Your task to perform on an android device: Show the shopping cart on newegg. Search for "razer thresher" on newegg, select the first entry, and add it to the cart. Image 0: 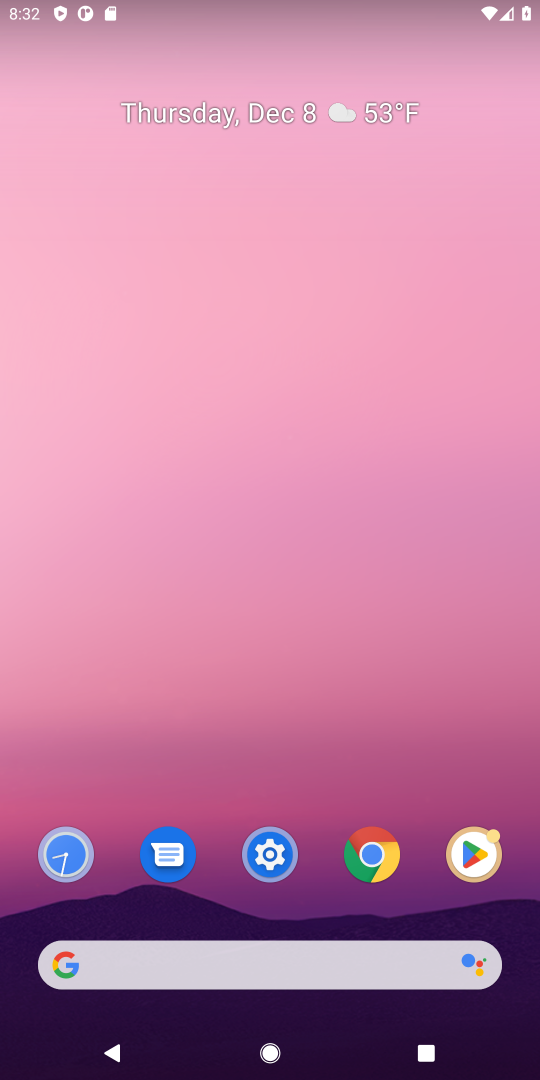
Step 0: press home button
Your task to perform on an android device: Show the shopping cart on newegg. Search for "razer thresher" on newegg, select the first entry, and add it to the cart. Image 1: 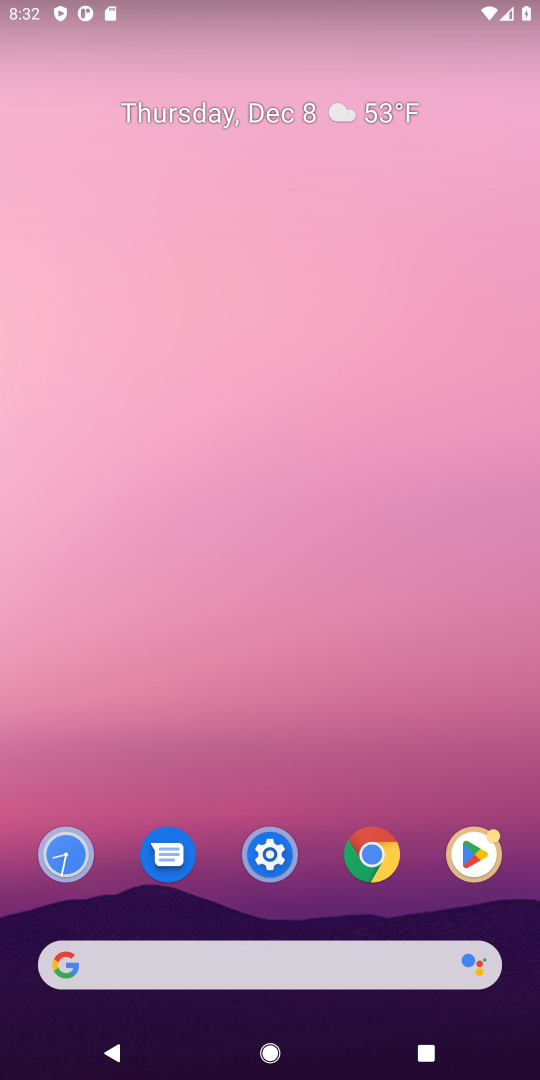
Step 1: click (86, 968)
Your task to perform on an android device: Show the shopping cart on newegg. Search for "razer thresher" on newegg, select the first entry, and add it to the cart. Image 2: 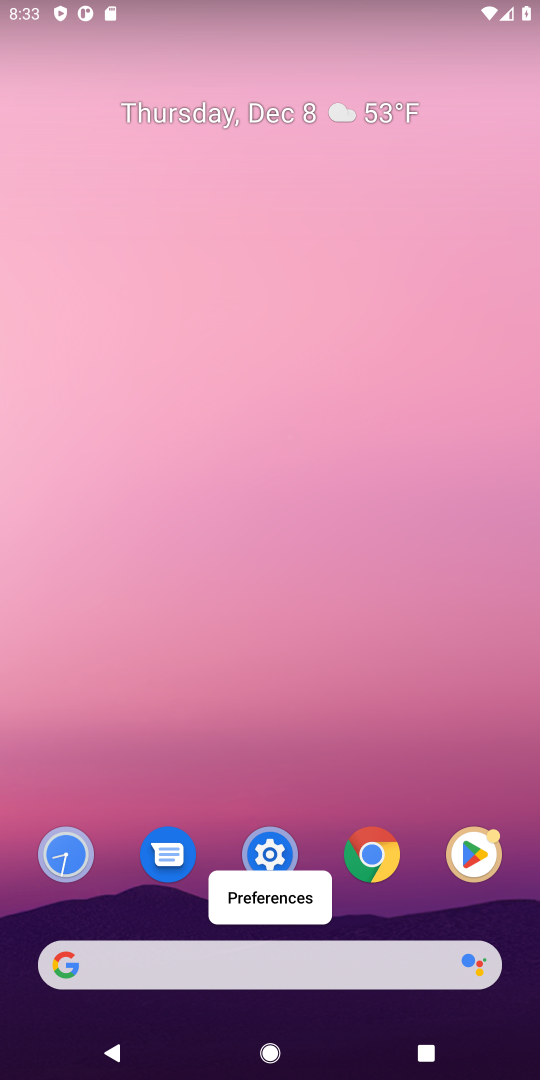
Step 2: click (116, 960)
Your task to perform on an android device: Show the shopping cart on newegg. Search for "razer thresher" on newegg, select the first entry, and add it to the cart. Image 3: 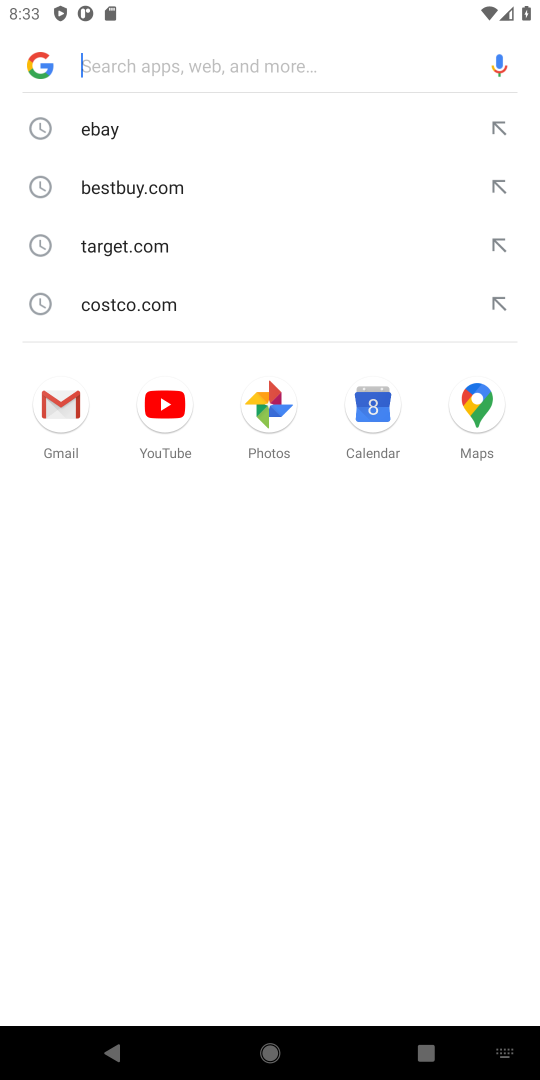
Step 3: type "newegg"
Your task to perform on an android device: Show the shopping cart on newegg. Search for "razer thresher" on newegg, select the first entry, and add it to the cart. Image 4: 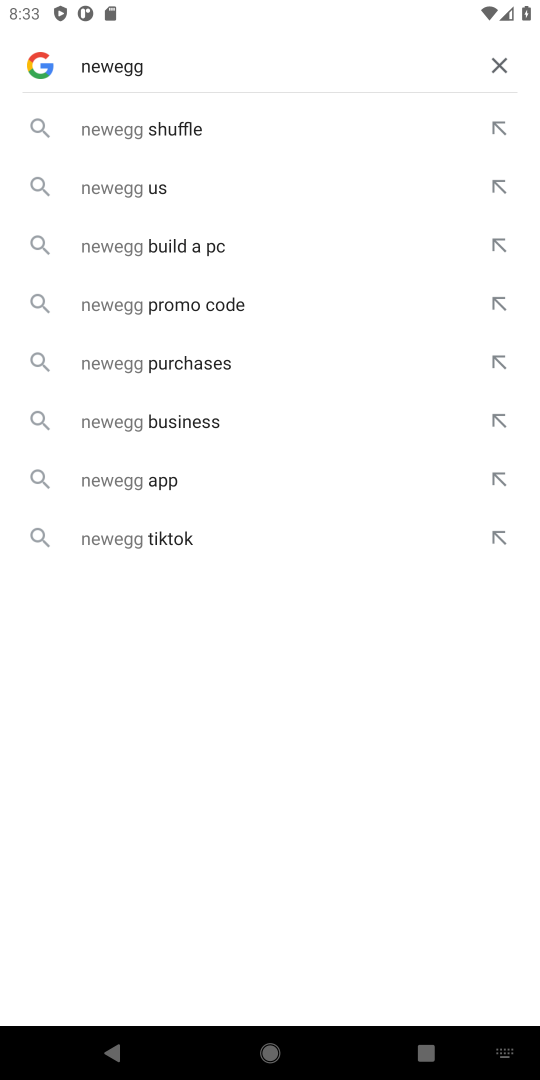
Step 4: press enter
Your task to perform on an android device: Show the shopping cart on newegg. Search for "razer thresher" on newegg, select the first entry, and add it to the cart. Image 5: 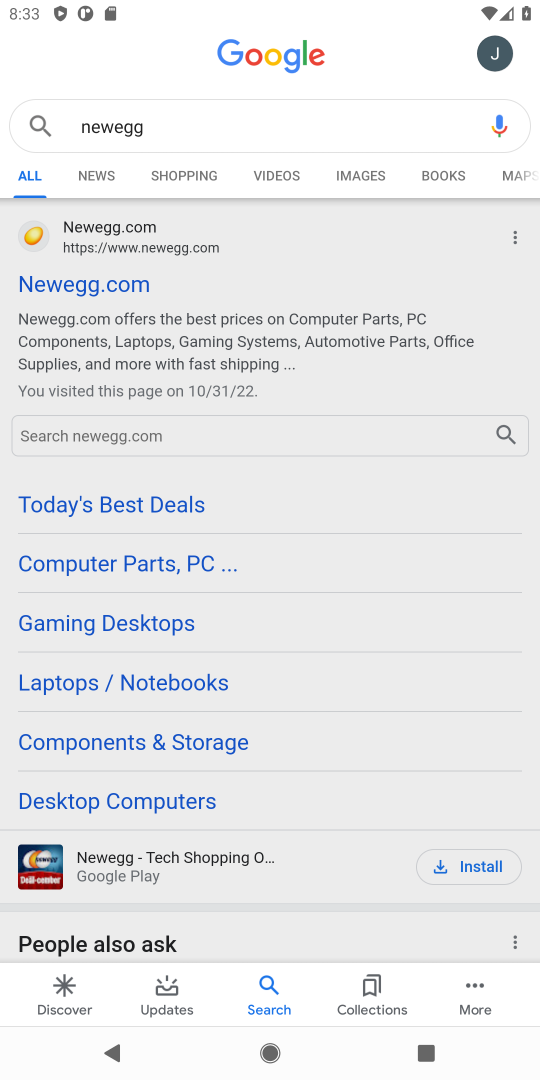
Step 5: click (71, 287)
Your task to perform on an android device: Show the shopping cart on newegg. Search for "razer thresher" on newegg, select the first entry, and add it to the cart. Image 6: 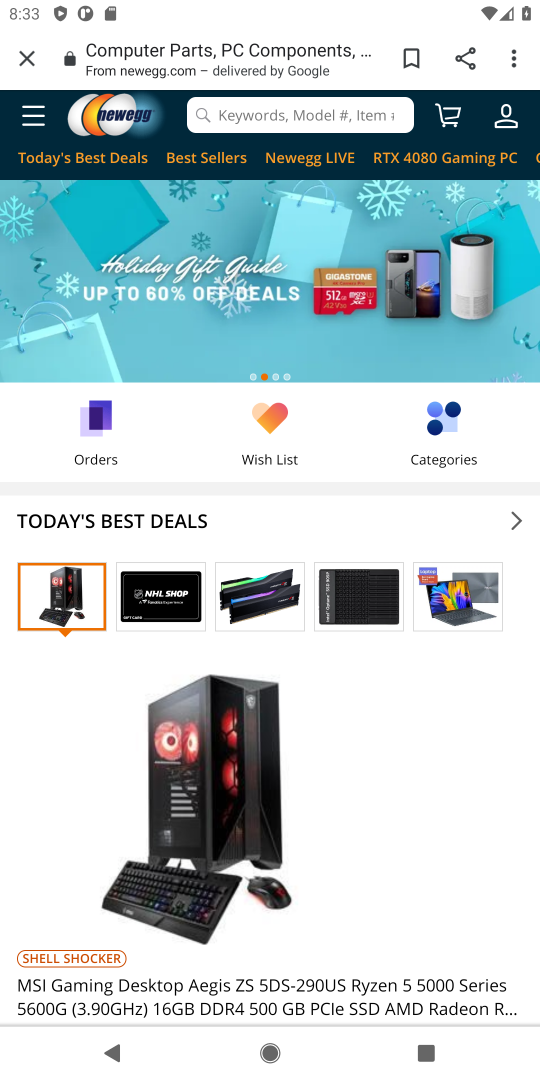
Step 6: click (451, 110)
Your task to perform on an android device: Show the shopping cart on newegg. Search for "razer thresher" on newegg, select the first entry, and add it to the cart. Image 7: 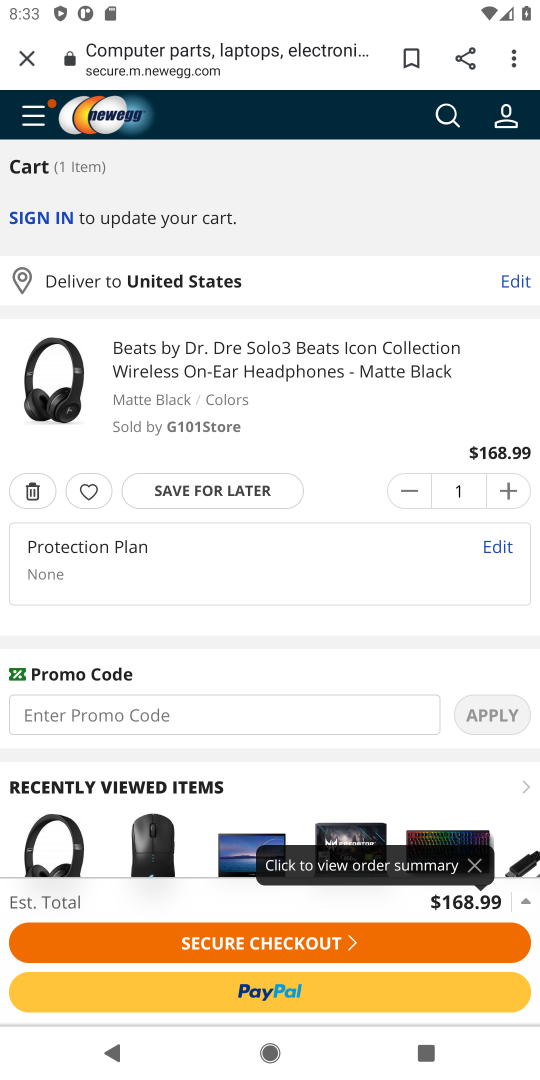
Step 7: click (442, 112)
Your task to perform on an android device: Show the shopping cart on newegg. Search for "razer thresher" on newegg, select the first entry, and add it to the cart. Image 8: 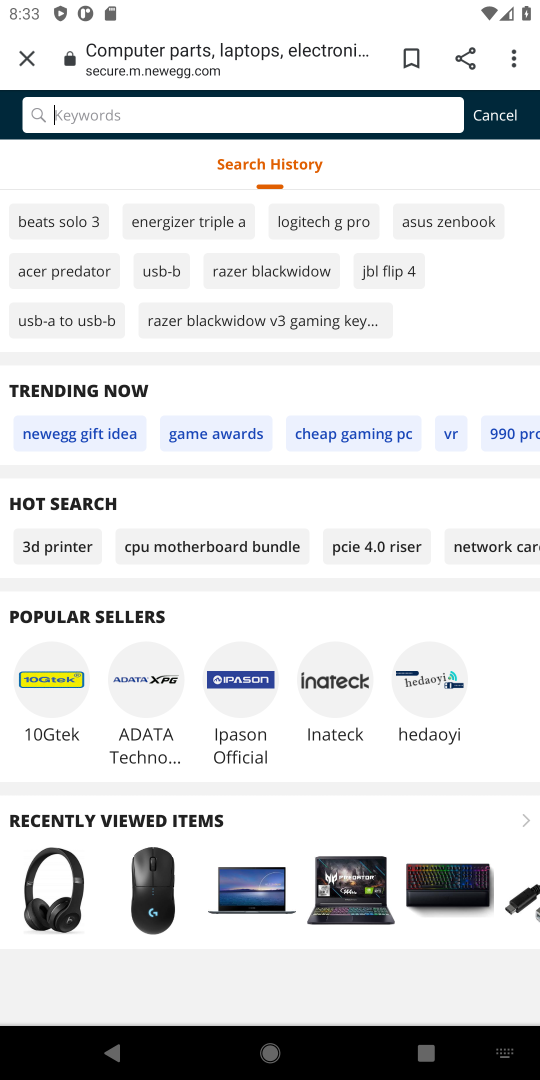
Step 8: type "razer thresher"
Your task to perform on an android device: Show the shopping cart on newegg. Search for "razer thresher" on newegg, select the first entry, and add it to the cart. Image 9: 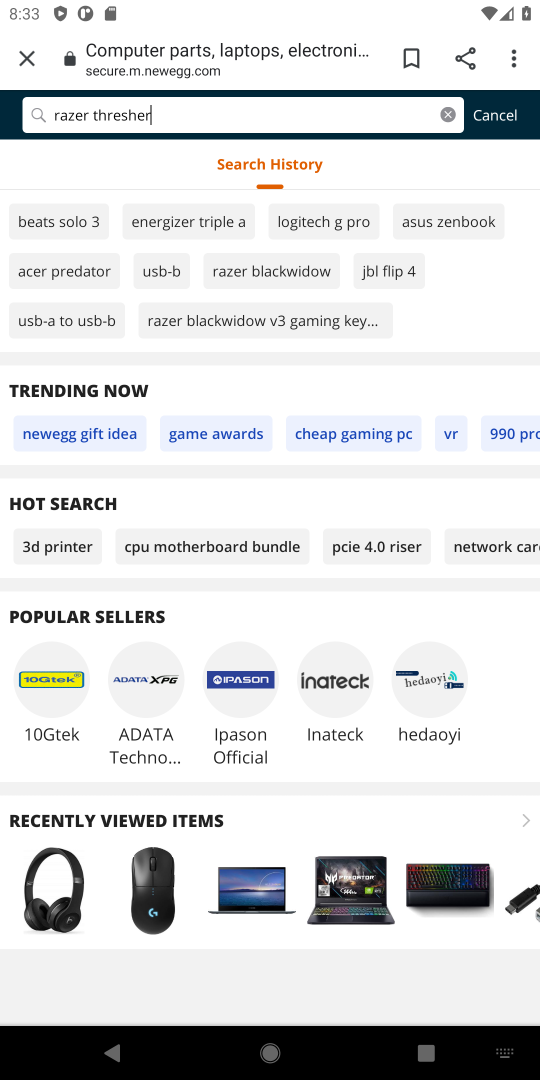
Step 9: press enter
Your task to perform on an android device: Show the shopping cart on newegg. Search for "razer thresher" on newegg, select the first entry, and add it to the cart. Image 10: 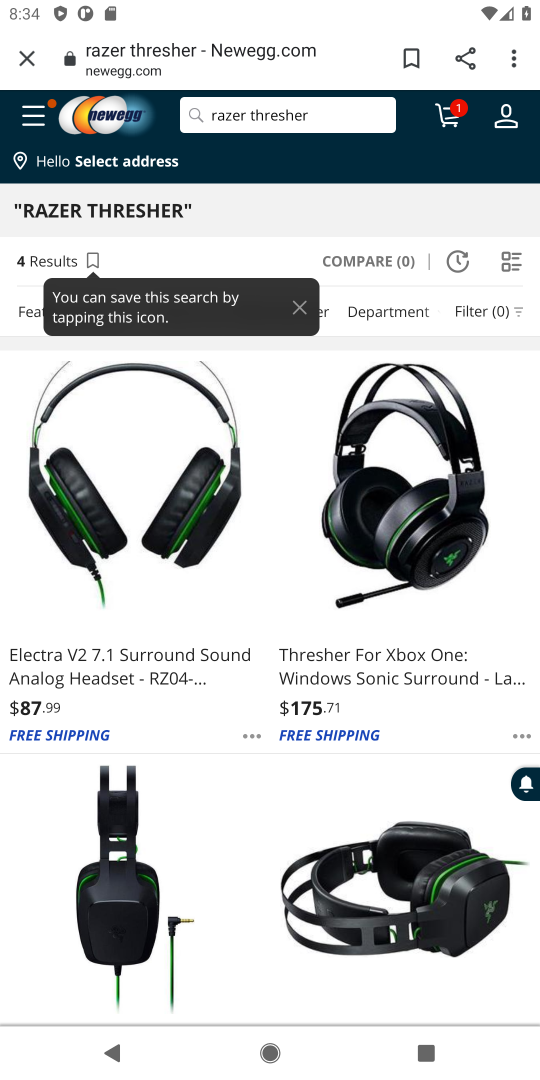
Step 10: task complete